Your task to perform on an android device: Is it going to rain today? Image 0: 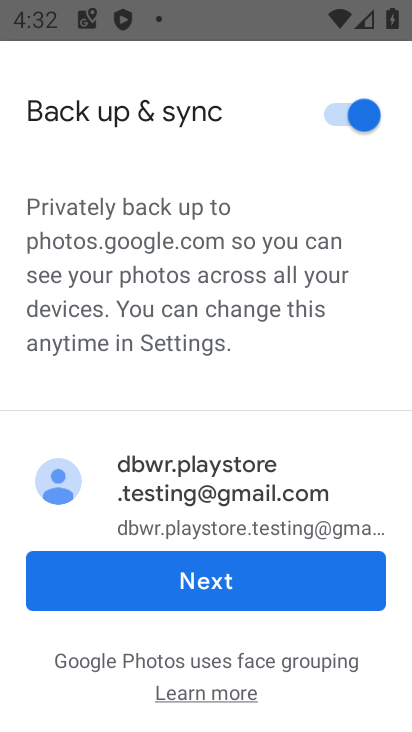
Step 0: press home button
Your task to perform on an android device: Is it going to rain today? Image 1: 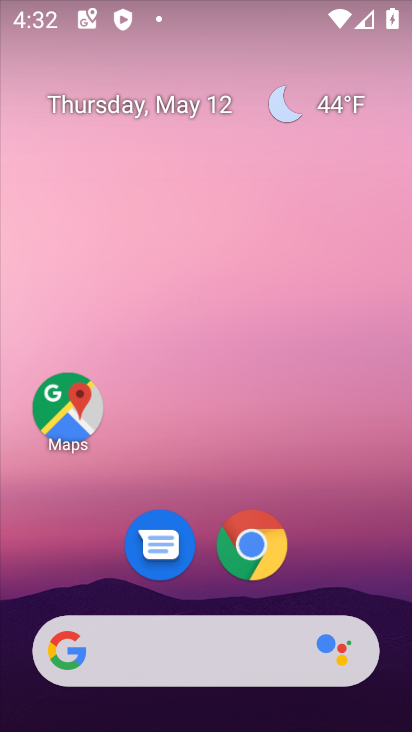
Step 1: click (335, 101)
Your task to perform on an android device: Is it going to rain today? Image 2: 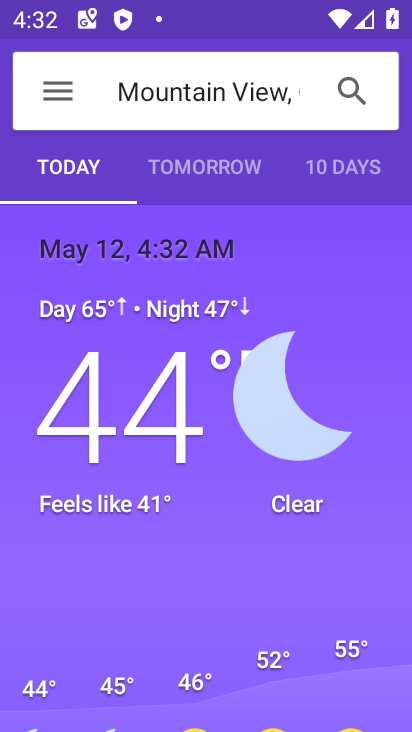
Step 2: task complete